Your task to perform on an android device: Open Maps and search for coffee Image 0: 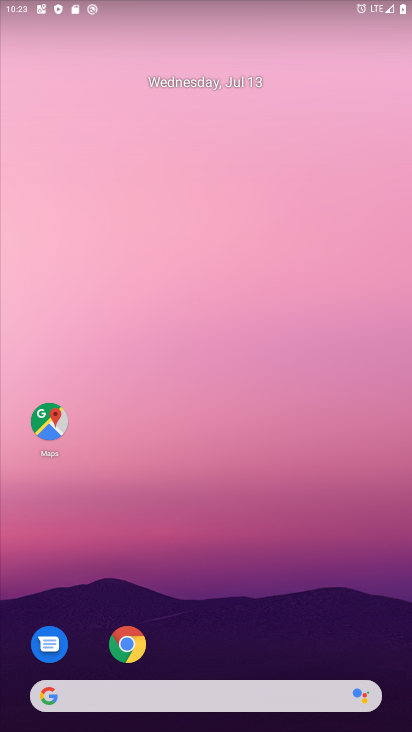
Step 0: drag from (201, 725) to (209, 60)
Your task to perform on an android device: Open Maps and search for coffee Image 1: 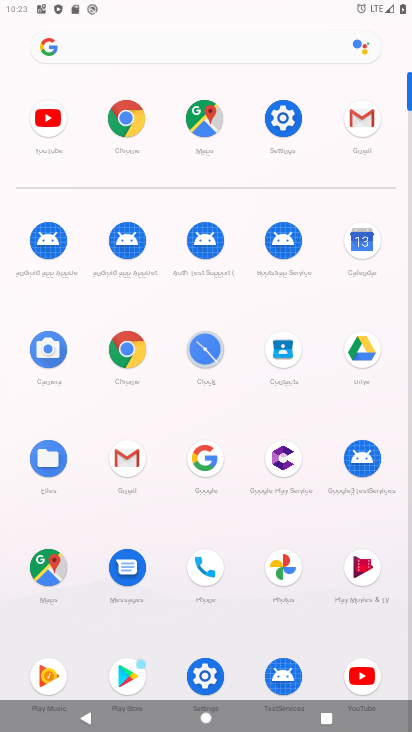
Step 1: click (49, 566)
Your task to perform on an android device: Open Maps and search for coffee Image 2: 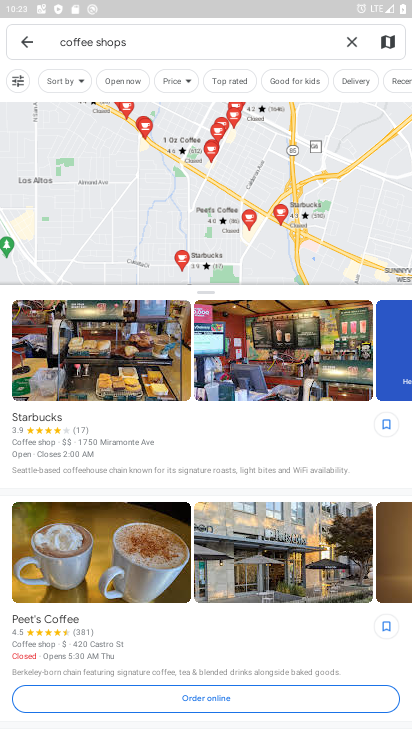
Step 2: click (352, 39)
Your task to perform on an android device: Open Maps and search for coffee Image 3: 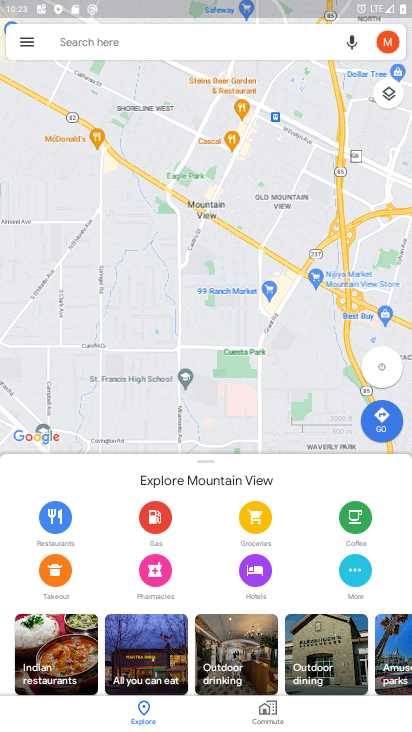
Step 3: click (118, 39)
Your task to perform on an android device: Open Maps and search for coffee Image 4: 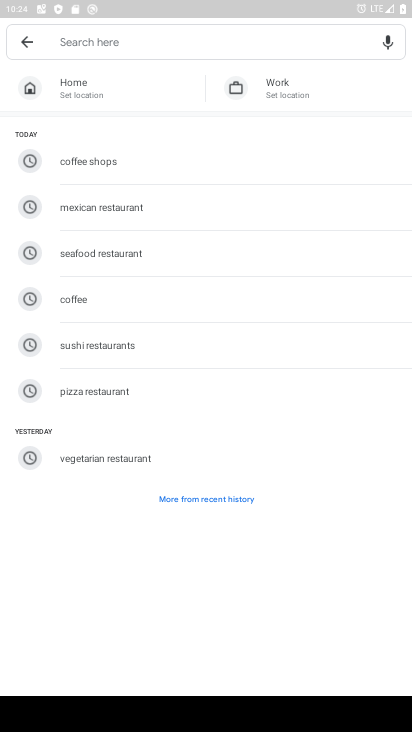
Step 4: type "coffee"
Your task to perform on an android device: Open Maps and search for coffee Image 5: 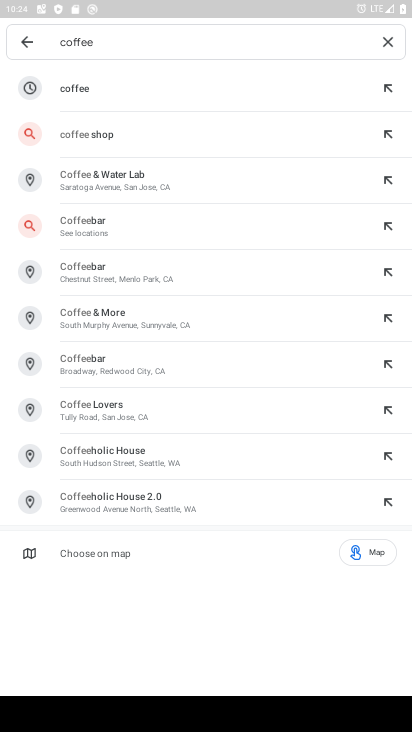
Step 5: click (72, 87)
Your task to perform on an android device: Open Maps and search for coffee Image 6: 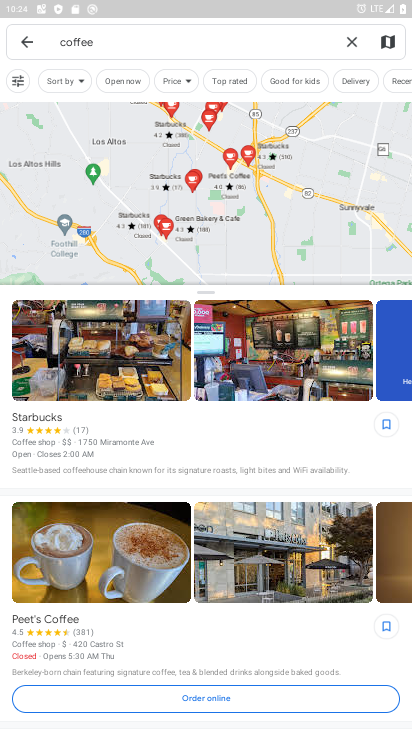
Step 6: task complete